Your task to perform on an android device: snooze an email in the gmail app Image 0: 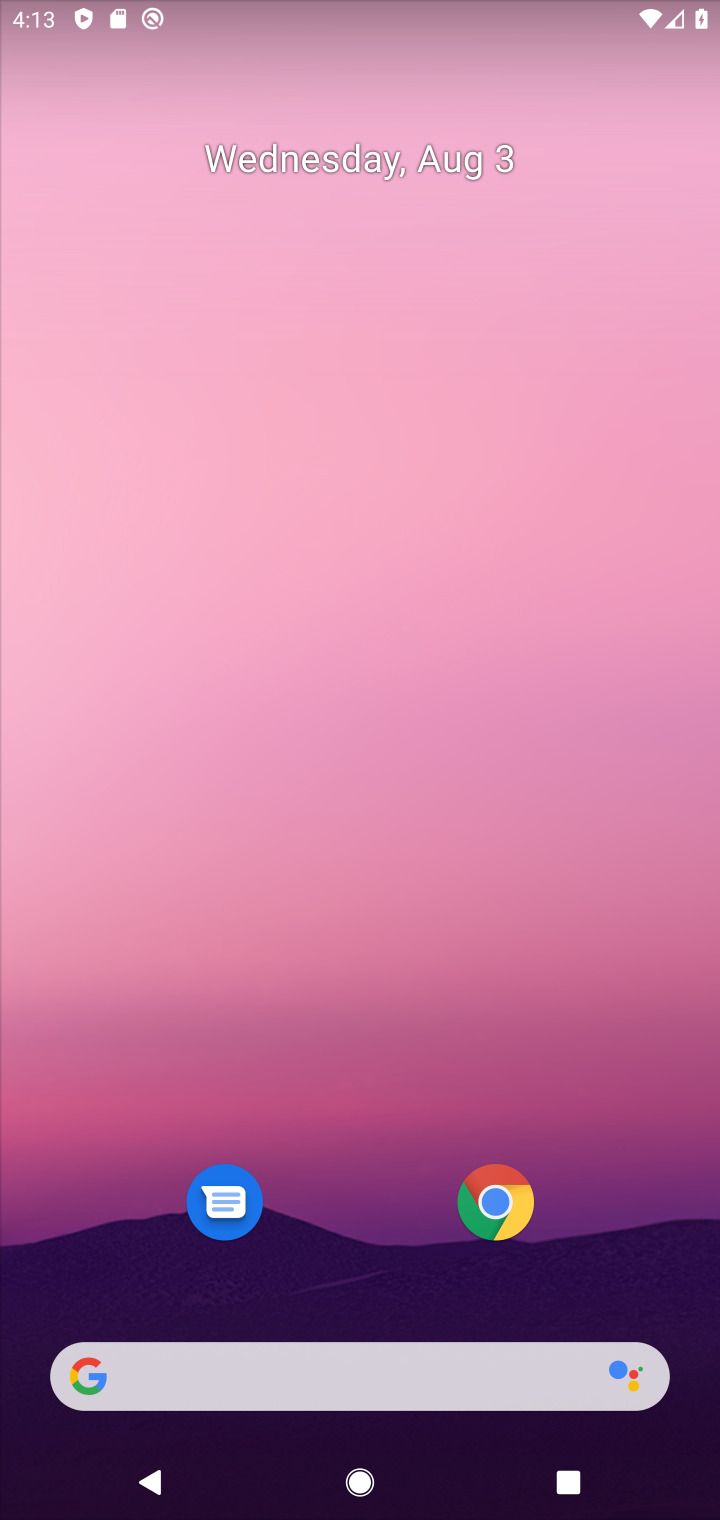
Step 0: drag from (351, 1097) to (376, 138)
Your task to perform on an android device: snooze an email in the gmail app Image 1: 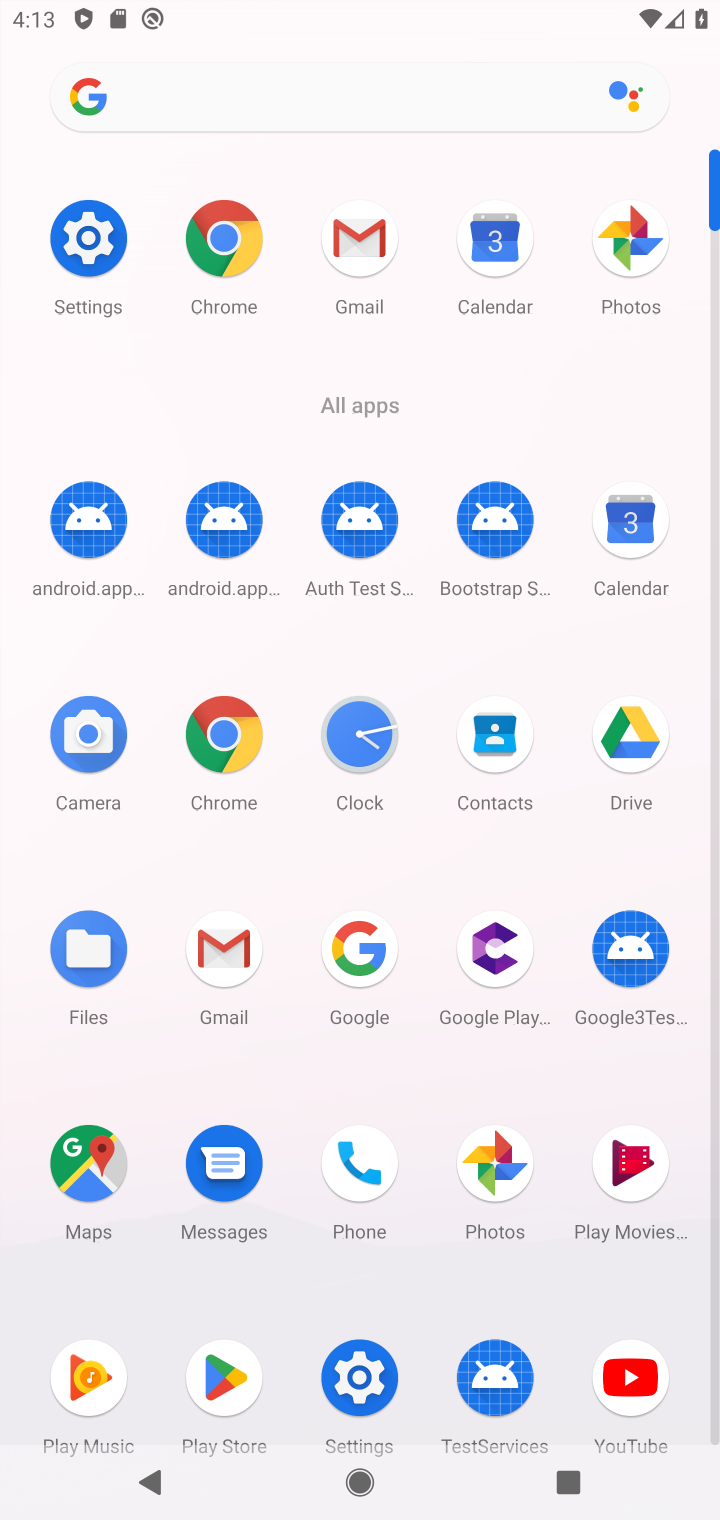
Step 1: click (370, 258)
Your task to perform on an android device: snooze an email in the gmail app Image 2: 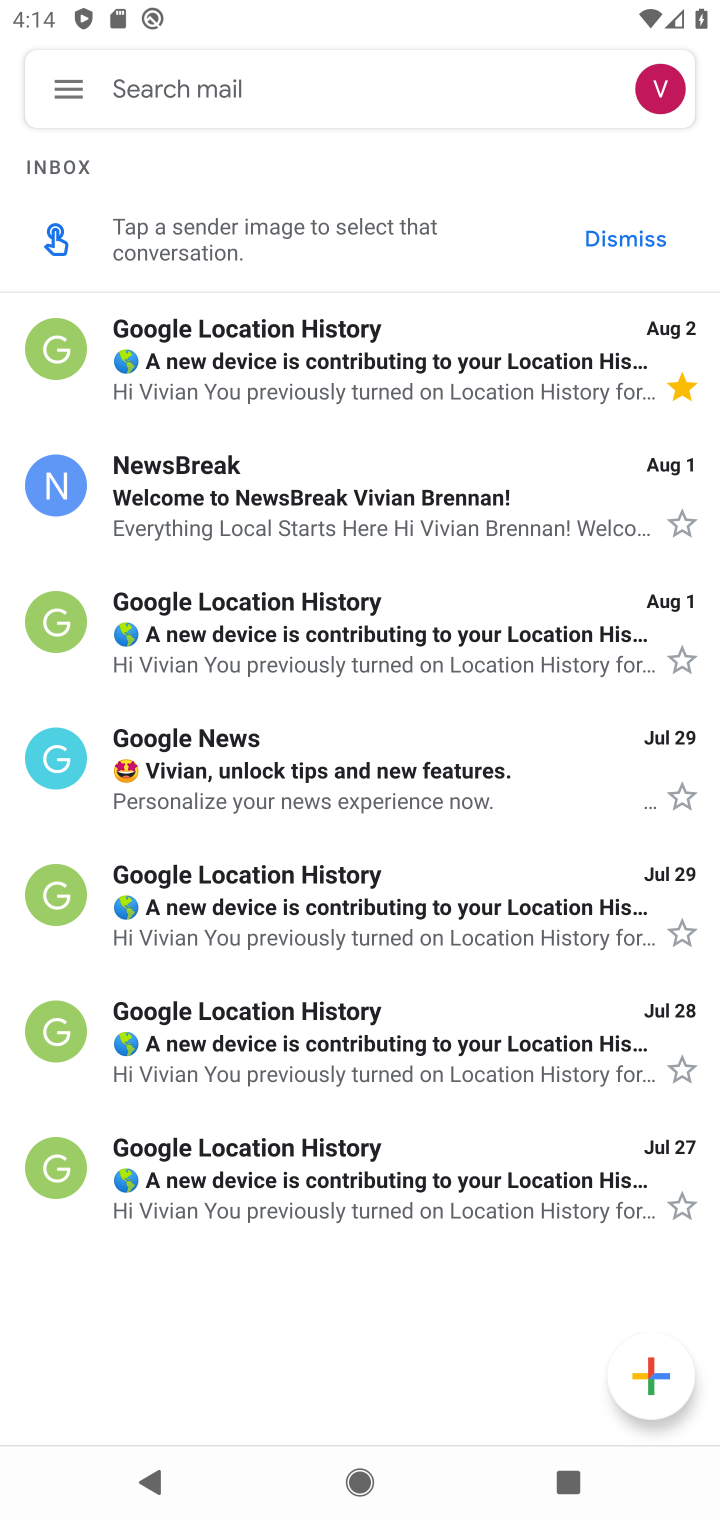
Step 2: click (223, 363)
Your task to perform on an android device: snooze an email in the gmail app Image 3: 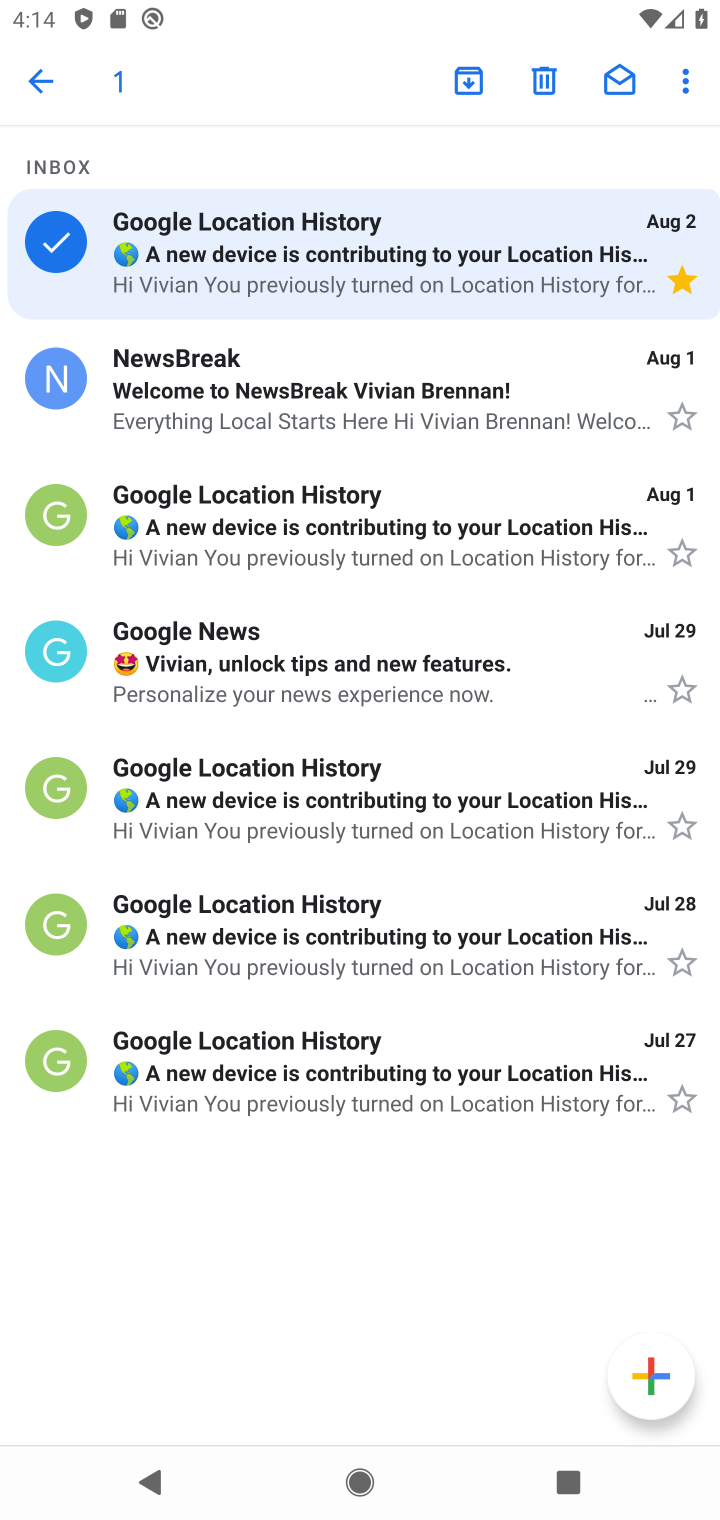
Step 3: click (677, 75)
Your task to perform on an android device: snooze an email in the gmail app Image 4: 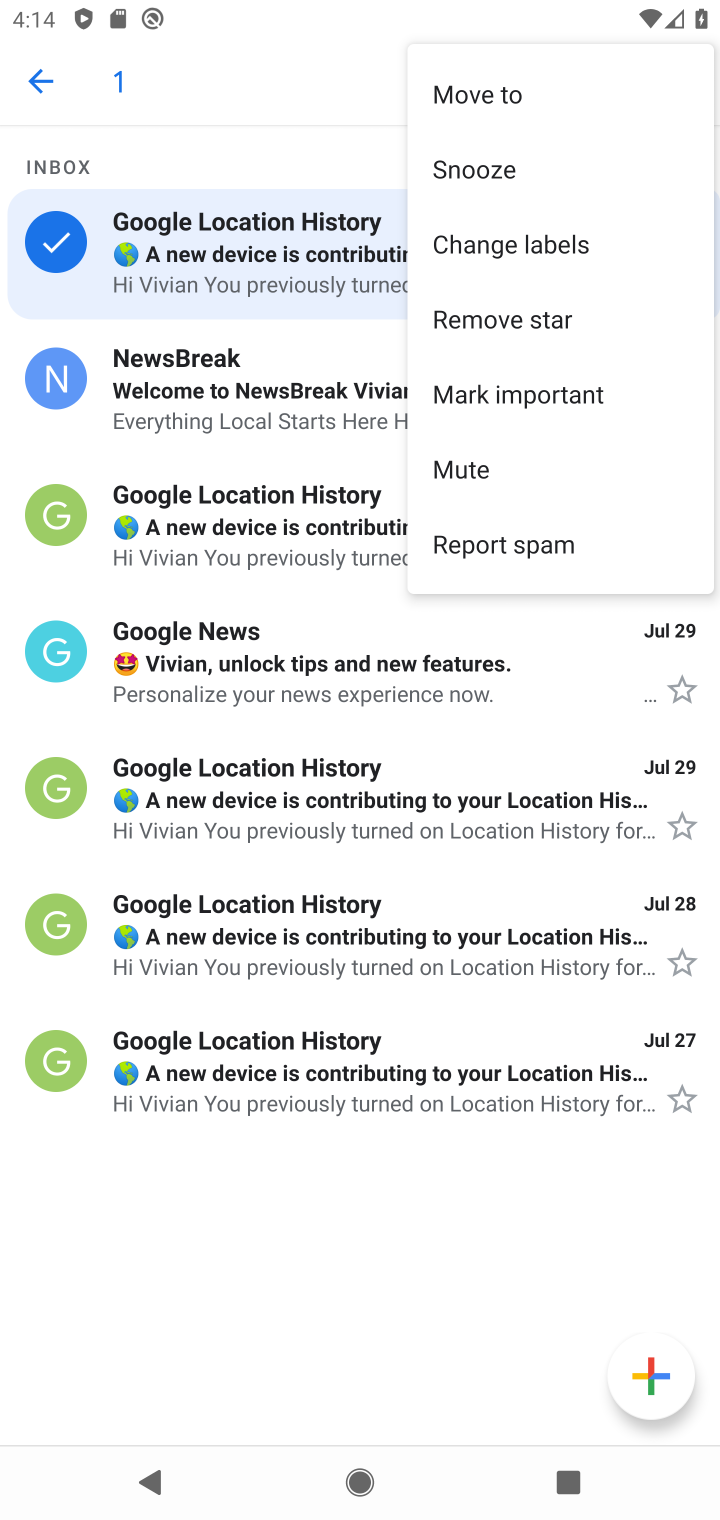
Step 4: click (498, 169)
Your task to perform on an android device: snooze an email in the gmail app Image 5: 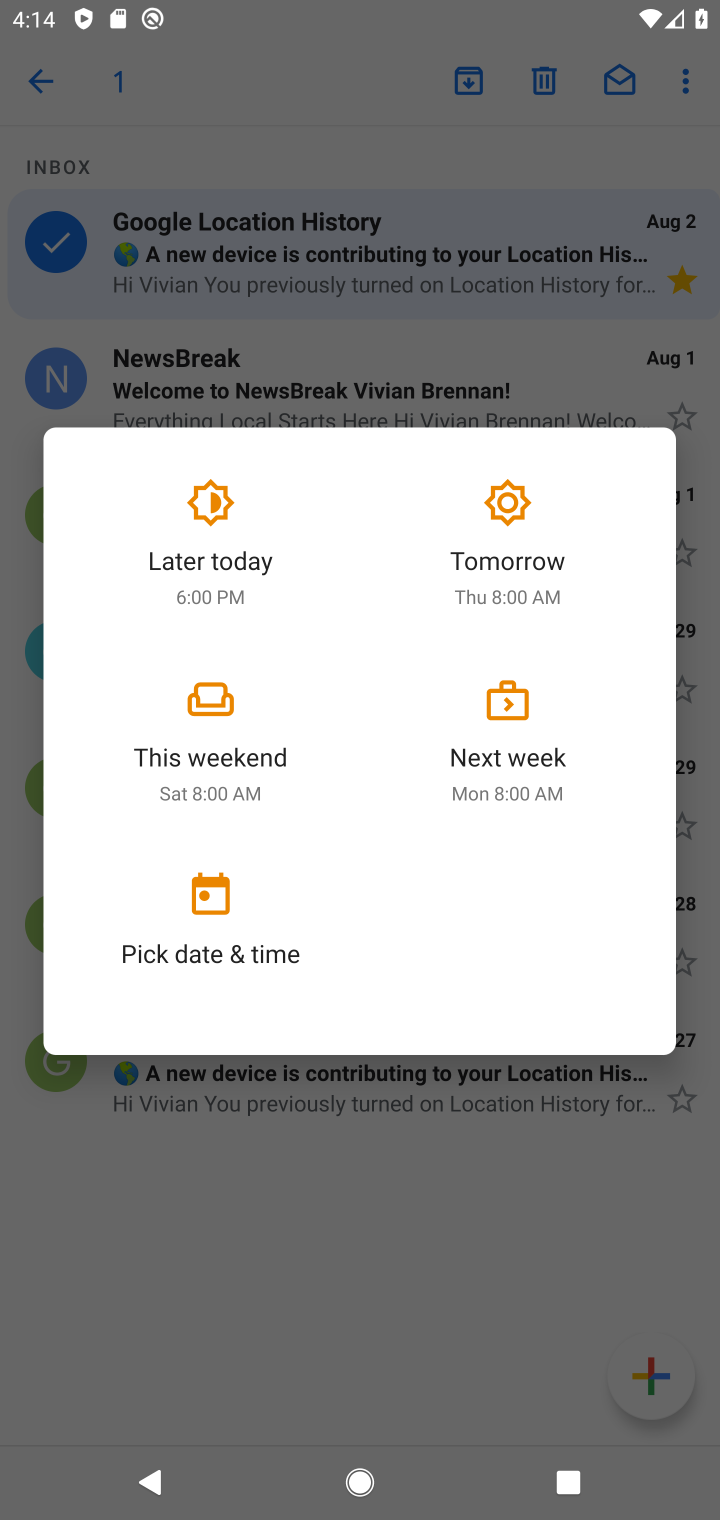
Step 5: click (224, 535)
Your task to perform on an android device: snooze an email in the gmail app Image 6: 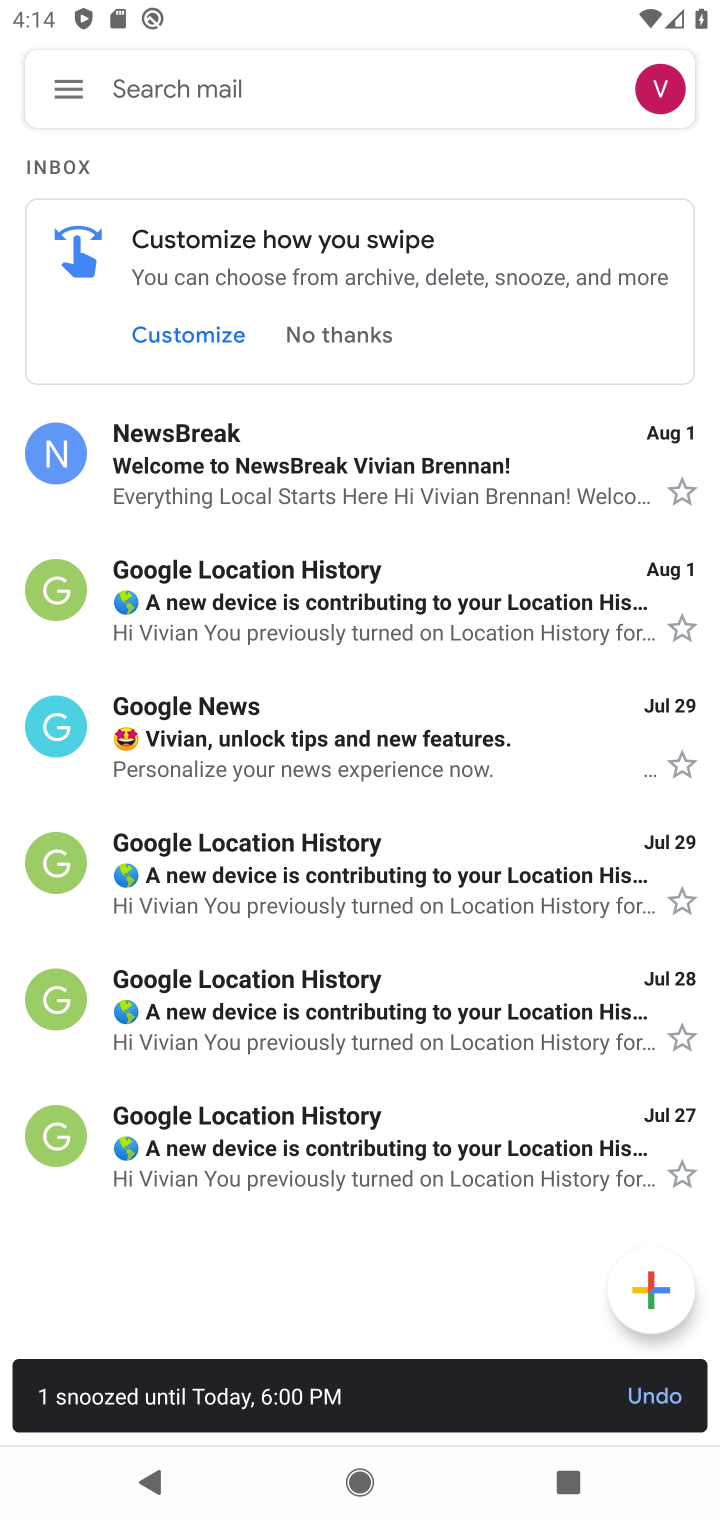
Step 6: task complete